Your task to perform on an android device: check android version Image 0: 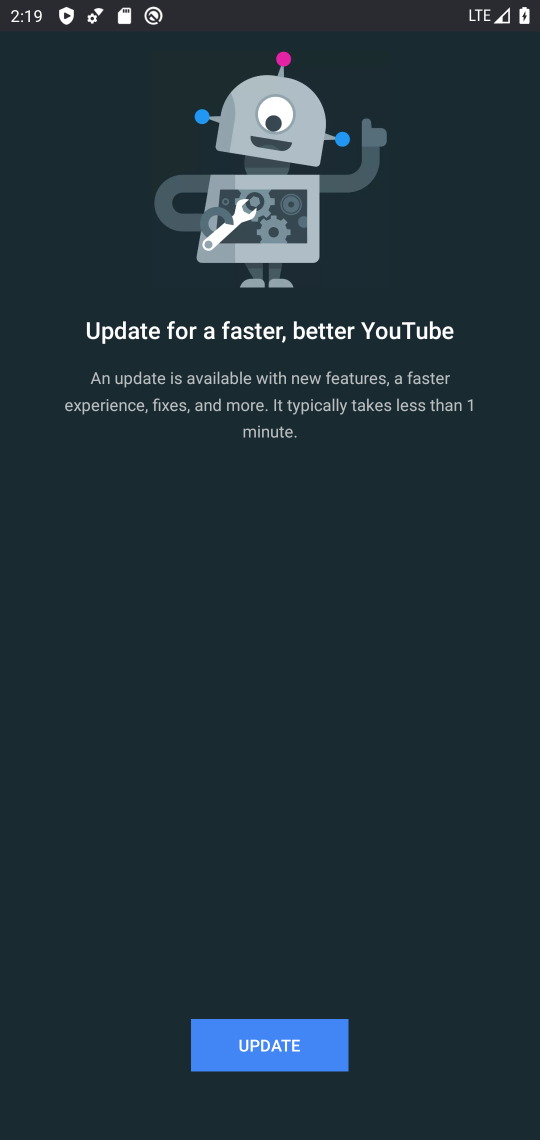
Step 0: press back button
Your task to perform on an android device: check android version Image 1: 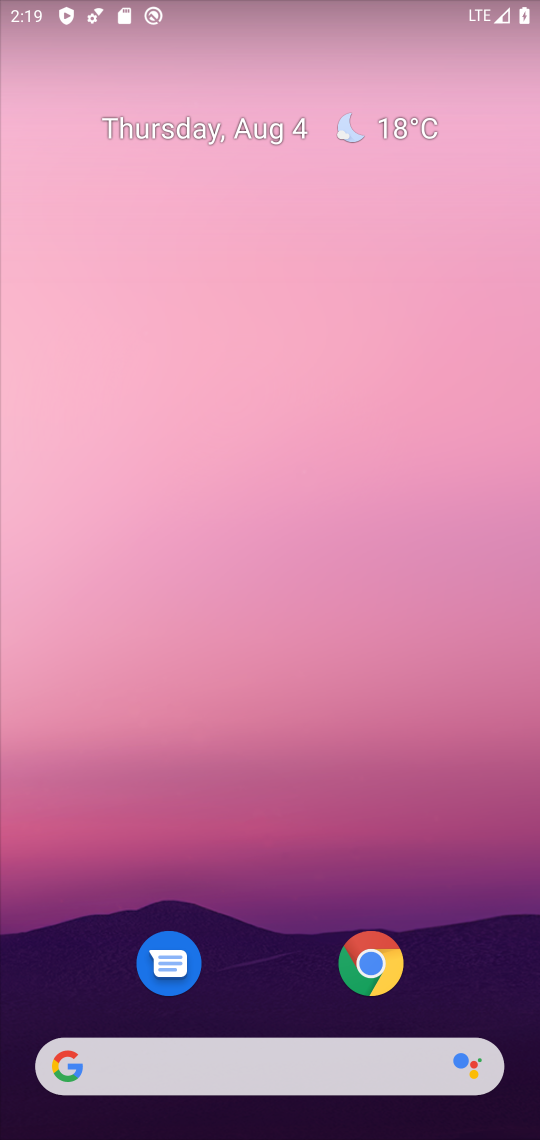
Step 1: drag from (310, 932) to (171, 7)
Your task to perform on an android device: check android version Image 2: 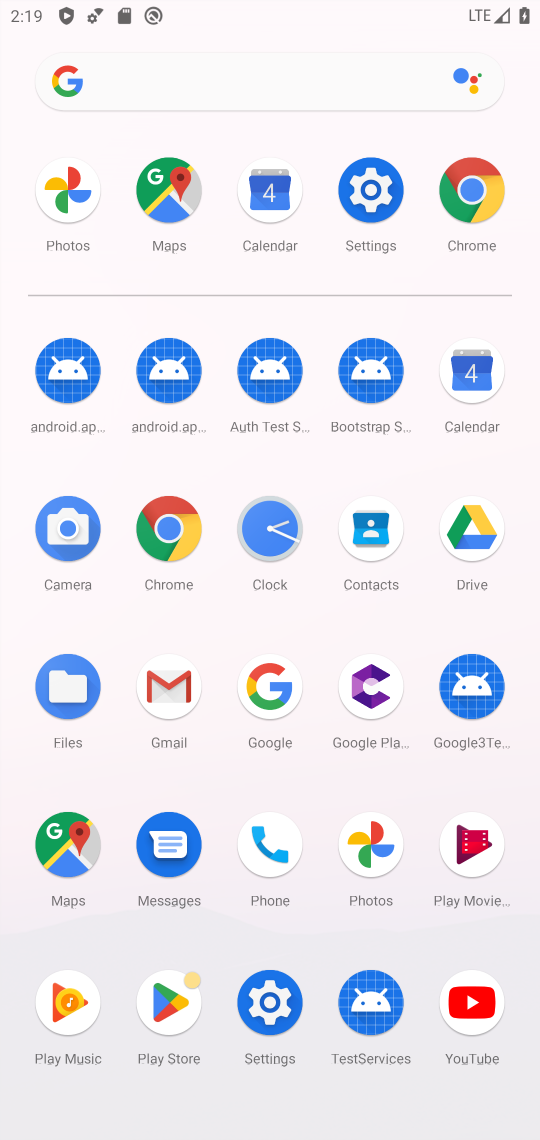
Step 2: click (283, 1039)
Your task to perform on an android device: check android version Image 3: 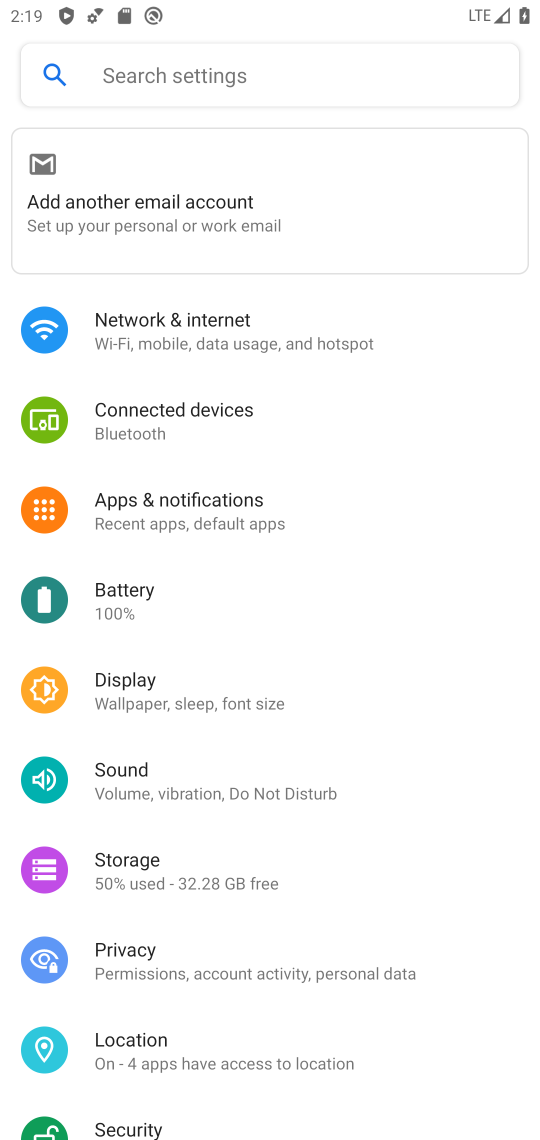
Step 3: drag from (241, 1029) to (165, 74)
Your task to perform on an android device: check android version Image 4: 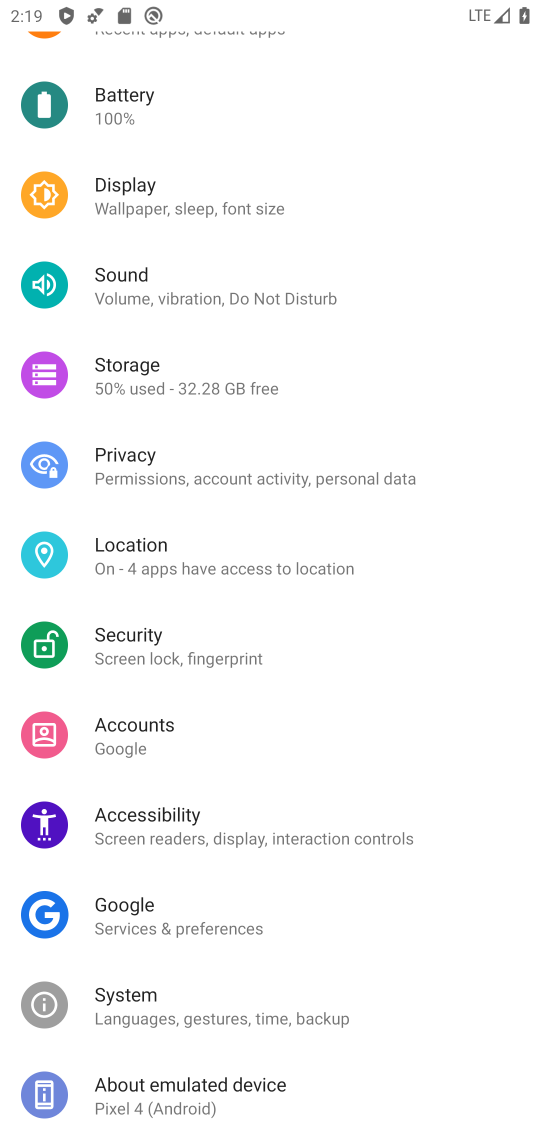
Step 4: click (206, 1094)
Your task to perform on an android device: check android version Image 5: 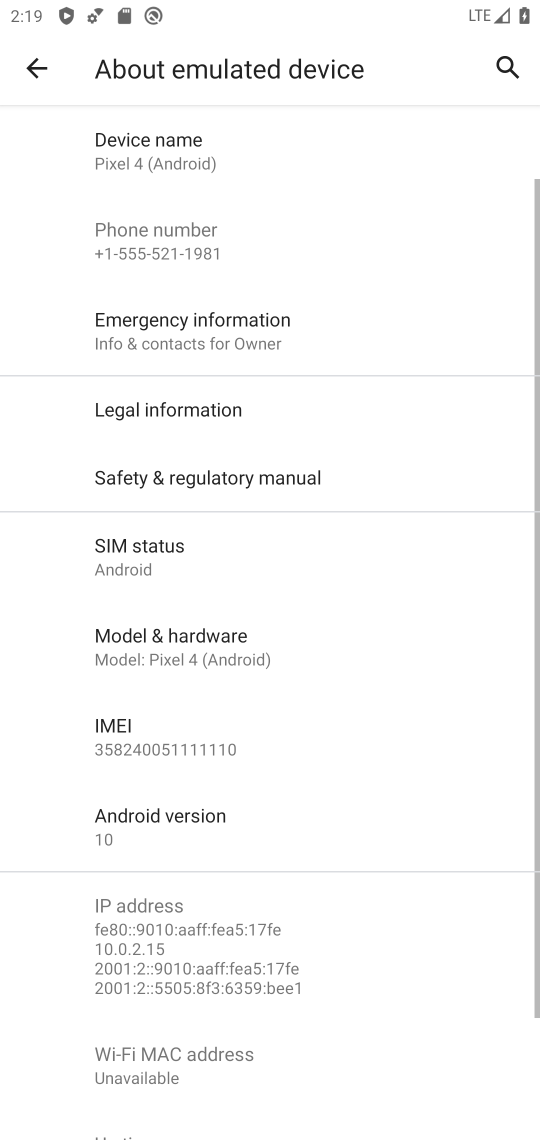
Step 5: click (172, 815)
Your task to perform on an android device: check android version Image 6: 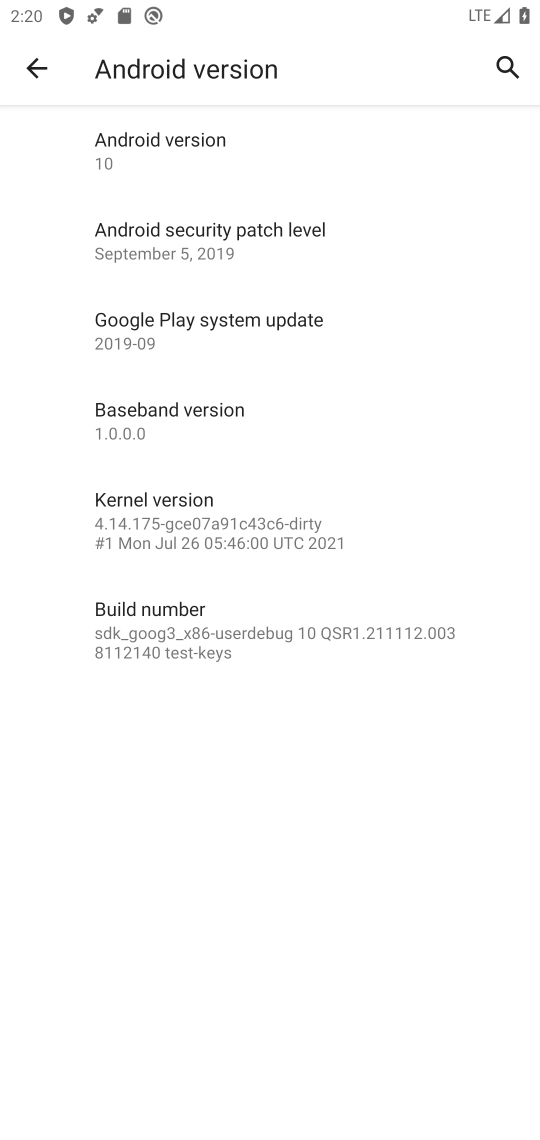
Step 6: task complete